Your task to perform on an android device: visit the assistant section in the google photos Image 0: 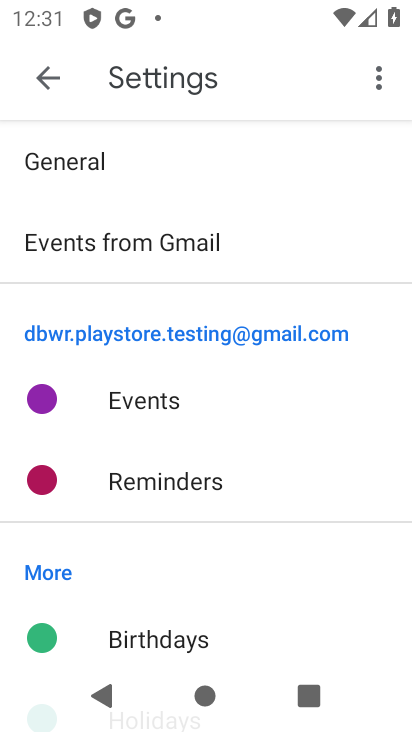
Step 0: press back button
Your task to perform on an android device: visit the assistant section in the google photos Image 1: 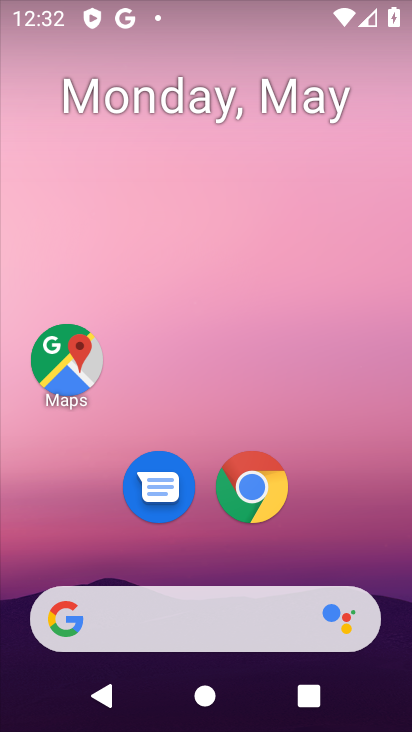
Step 1: drag from (335, 552) to (225, 113)
Your task to perform on an android device: visit the assistant section in the google photos Image 2: 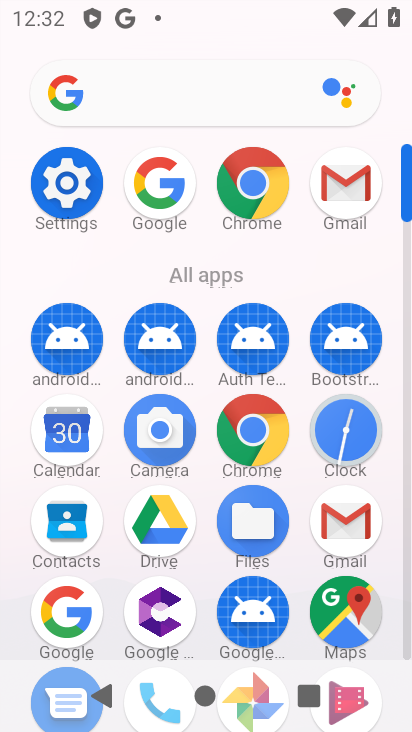
Step 2: drag from (197, 480) to (208, 268)
Your task to perform on an android device: visit the assistant section in the google photos Image 3: 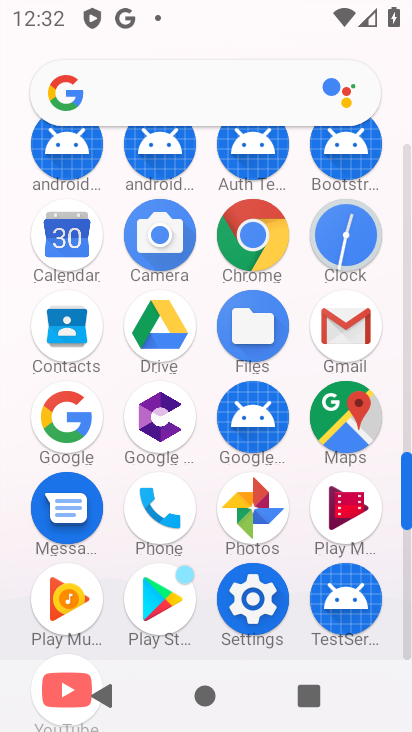
Step 3: click (253, 508)
Your task to perform on an android device: visit the assistant section in the google photos Image 4: 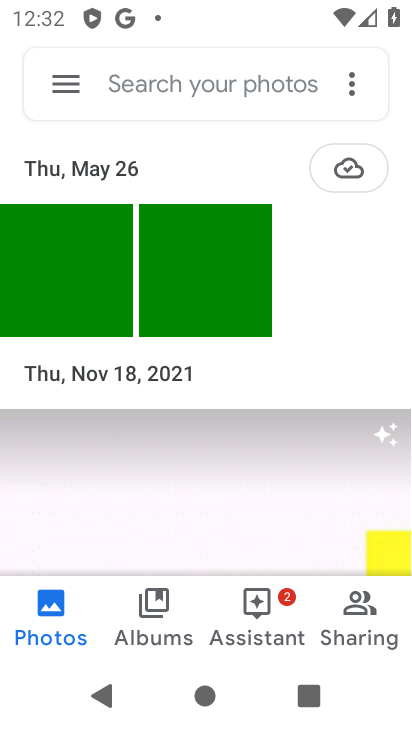
Step 4: click (256, 607)
Your task to perform on an android device: visit the assistant section in the google photos Image 5: 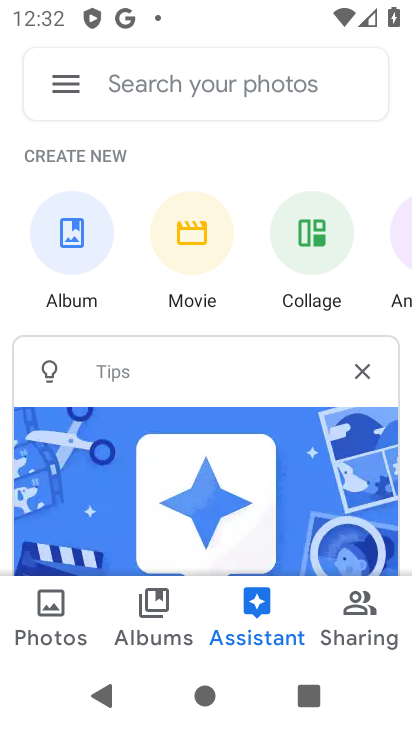
Step 5: task complete